Your task to perform on an android device: When is my next meeting? Image 0: 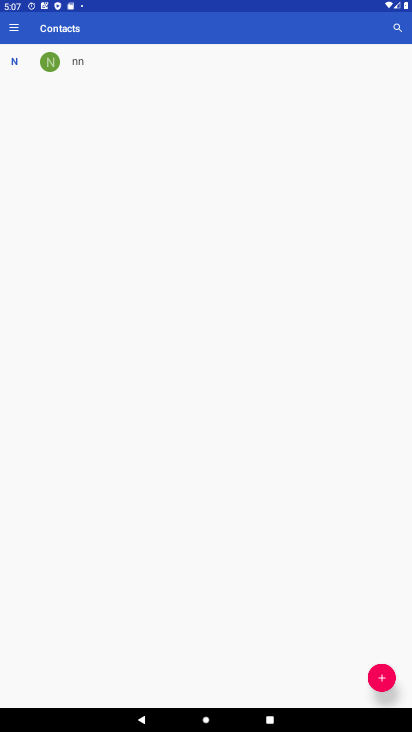
Step 0: press home button
Your task to perform on an android device: When is my next meeting? Image 1: 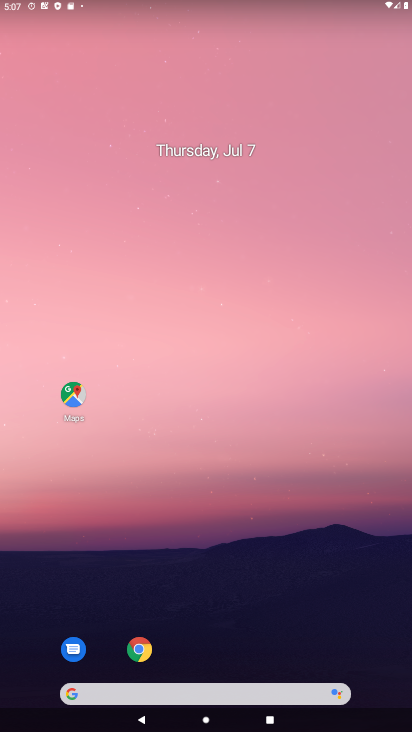
Step 1: drag from (352, 681) to (305, 169)
Your task to perform on an android device: When is my next meeting? Image 2: 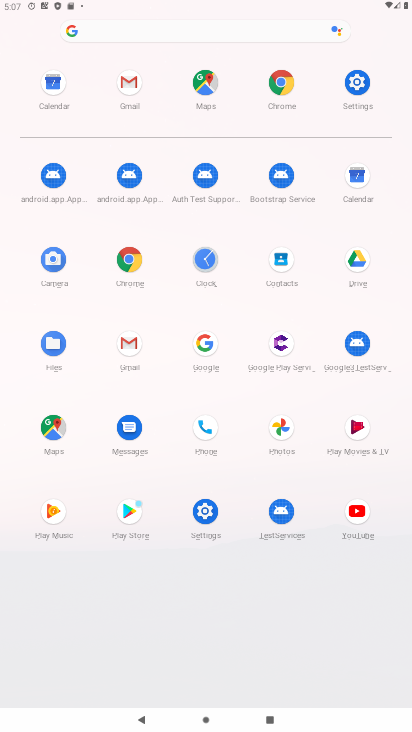
Step 2: click (360, 181)
Your task to perform on an android device: When is my next meeting? Image 3: 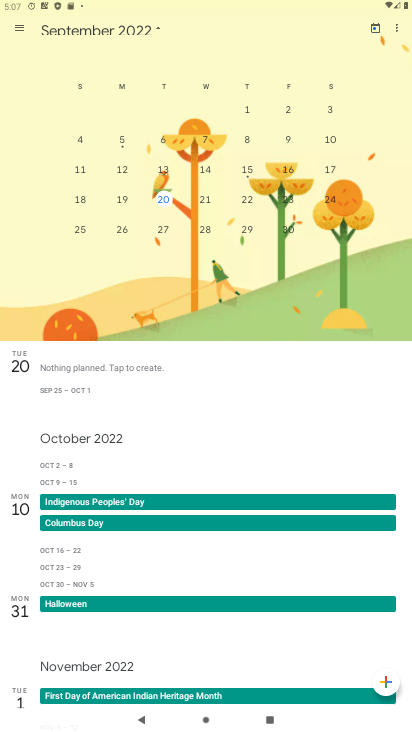
Step 3: task complete